Your task to perform on an android device: Open Chrome and go to settings Image 0: 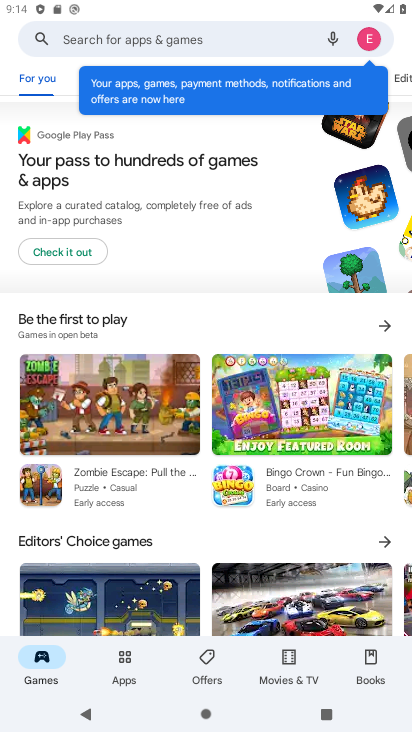
Step 0: press home button
Your task to perform on an android device: Open Chrome and go to settings Image 1: 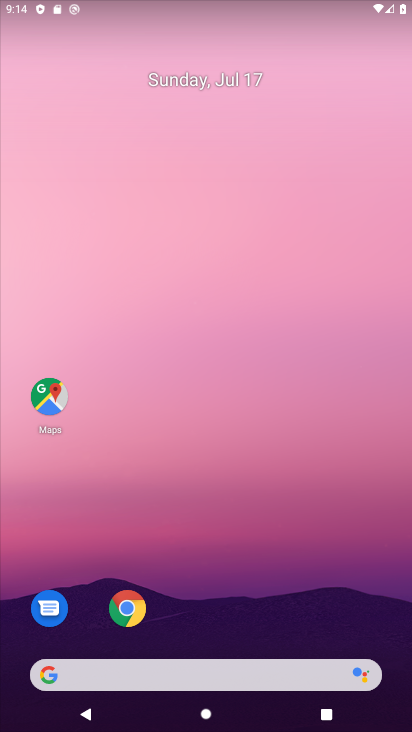
Step 1: drag from (323, 517) to (253, 0)
Your task to perform on an android device: Open Chrome and go to settings Image 2: 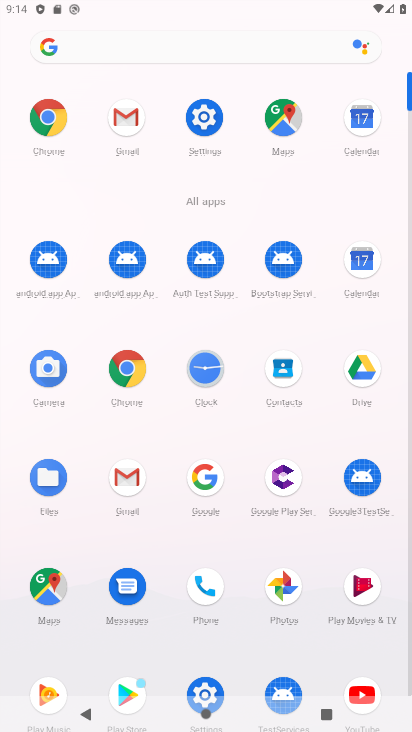
Step 2: click (48, 116)
Your task to perform on an android device: Open Chrome and go to settings Image 3: 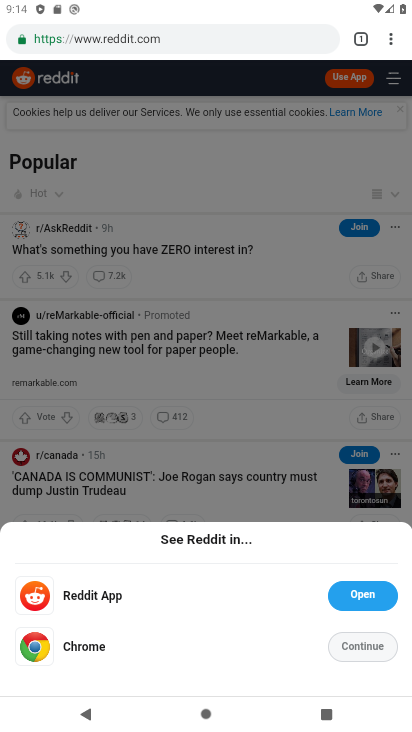
Step 3: task complete